Your task to perform on an android device: turn on notifications settings in the gmail app Image 0: 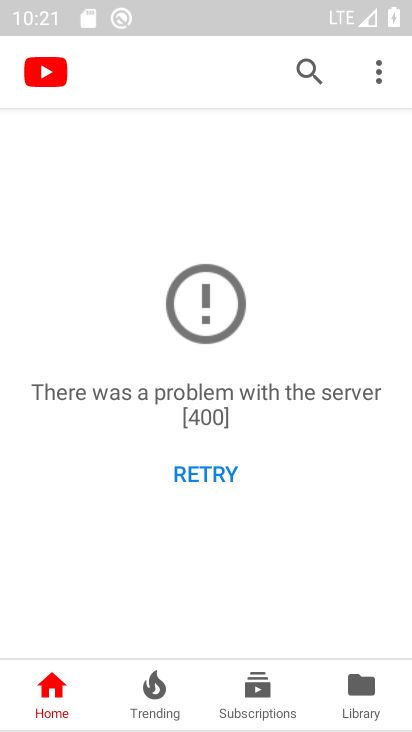
Step 0: press home button
Your task to perform on an android device: turn on notifications settings in the gmail app Image 1: 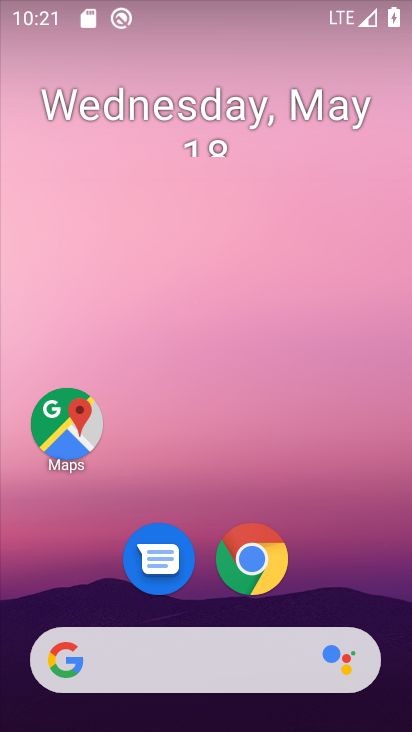
Step 1: drag from (200, 573) to (176, 62)
Your task to perform on an android device: turn on notifications settings in the gmail app Image 2: 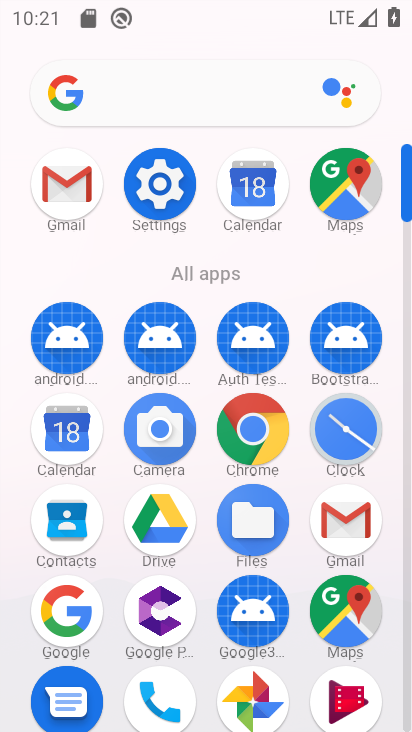
Step 2: click (351, 526)
Your task to perform on an android device: turn on notifications settings in the gmail app Image 3: 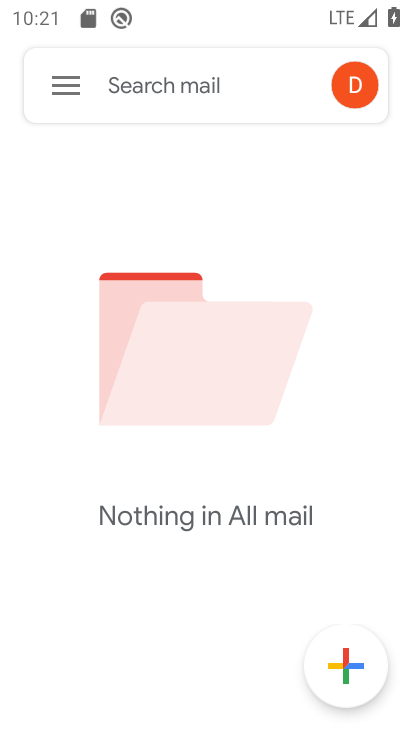
Step 3: click (53, 91)
Your task to perform on an android device: turn on notifications settings in the gmail app Image 4: 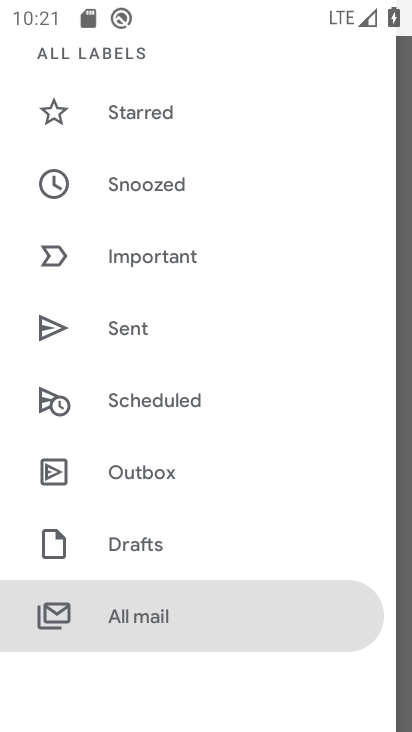
Step 4: drag from (150, 519) to (223, 144)
Your task to perform on an android device: turn on notifications settings in the gmail app Image 5: 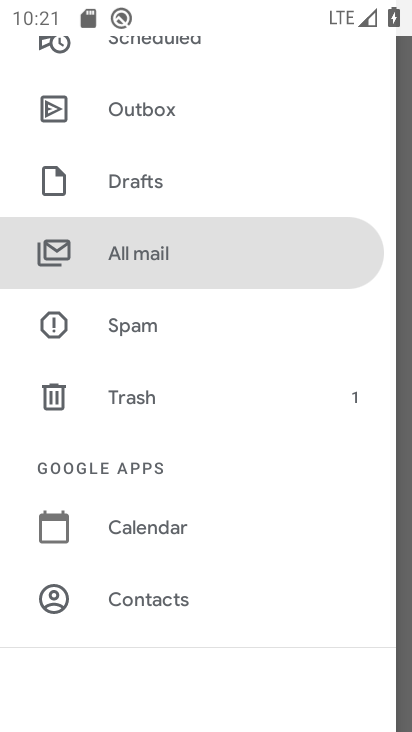
Step 5: drag from (184, 596) to (221, 76)
Your task to perform on an android device: turn on notifications settings in the gmail app Image 6: 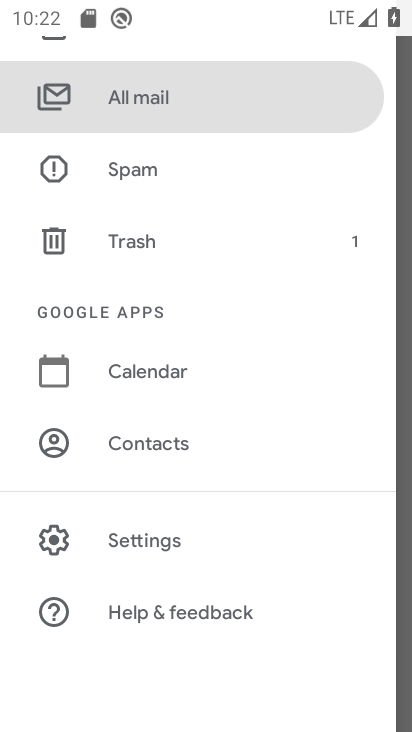
Step 6: click (133, 550)
Your task to perform on an android device: turn on notifications settings in the gmail app Image 7: 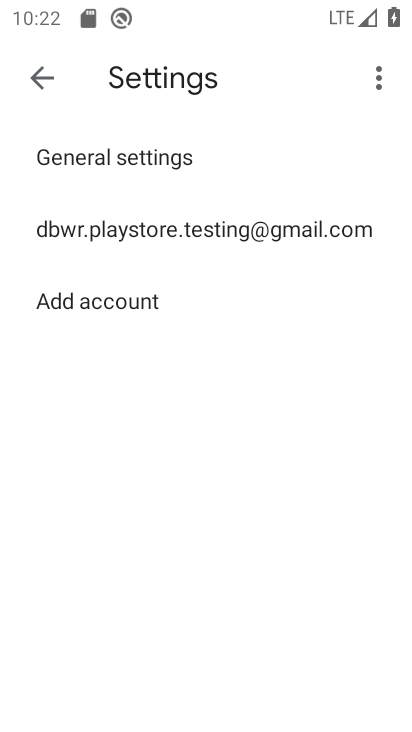
Step 7: click (153, 151)
Your task to perform on an android device: turn on notifications settings in the gmail app Image 8: 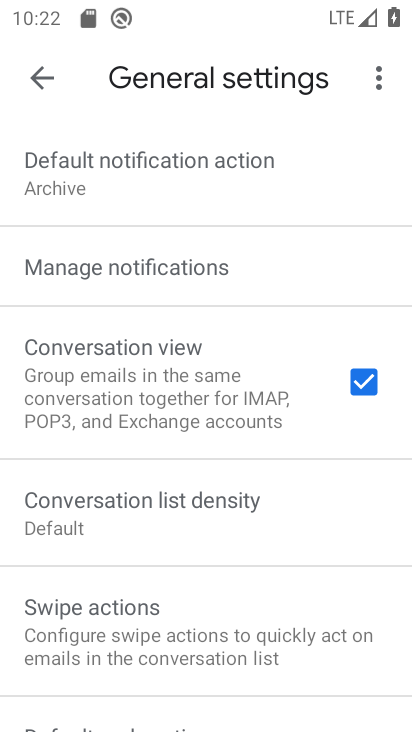
Step 8: click (137, 276)
Your task to perform on an android device: turn on notifications settings in the gmail app Image 9: 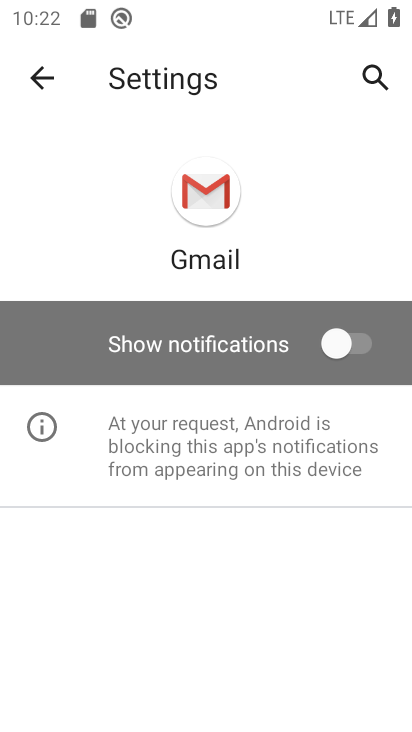
Step 9: click (356, 334)
Your task to perform on an android device: turn on notifications settings in the gmail app Image 10: 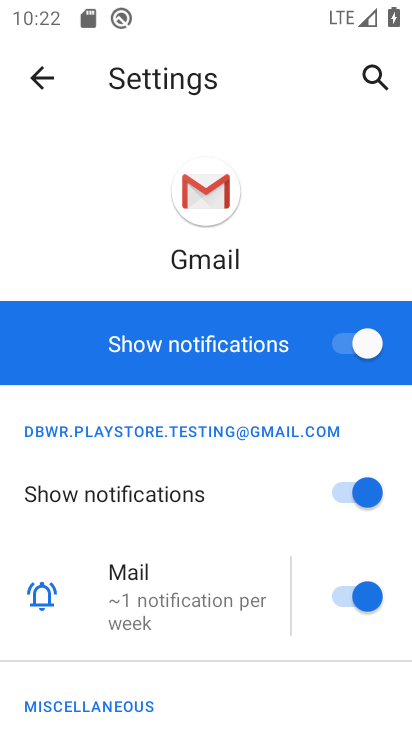
Step 10: task complete